Your task to perform on an android device: turn off wifi Image 0: 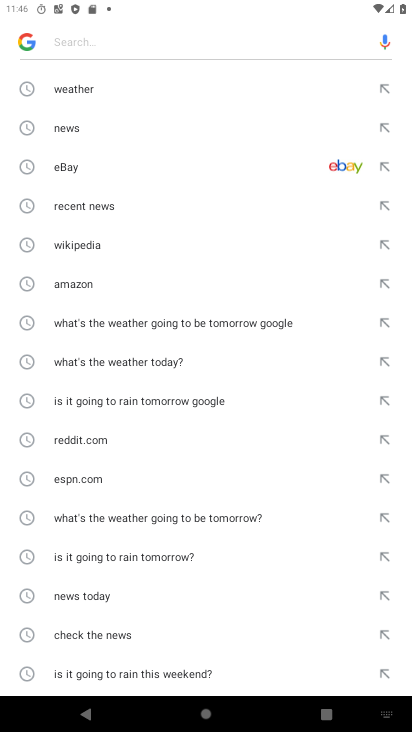
Step 0: press home button
Your task to perform on an android device: turn off wifi Image 1: 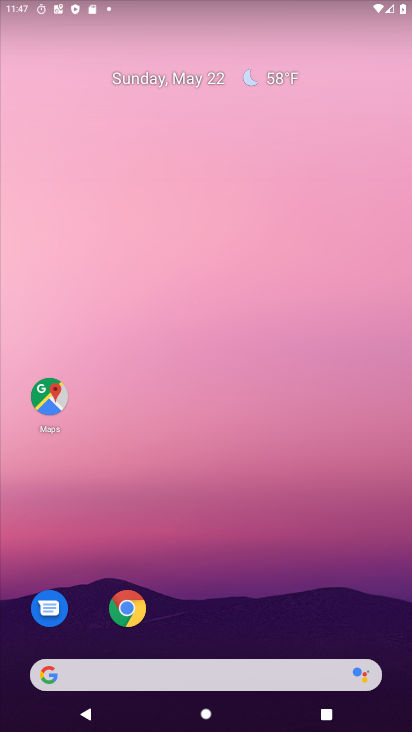
Step 1: drag from (240, 625) to (224, 86)
Your task to perform on an android device: turn off wifi Image 2: 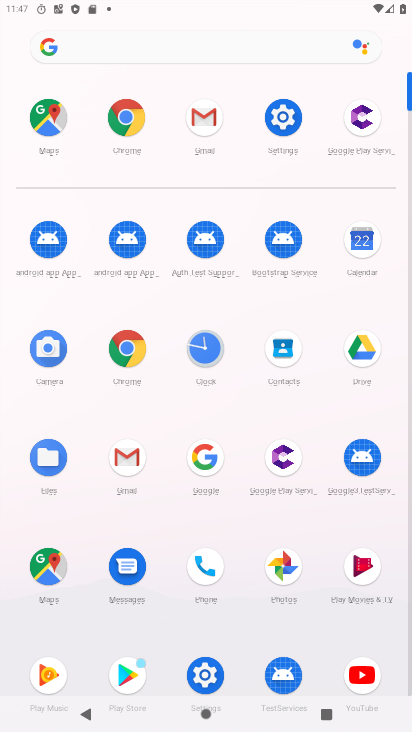
Step 2: click (278, 132)
Your task to perform on an android device: turn off wifi Image 3: 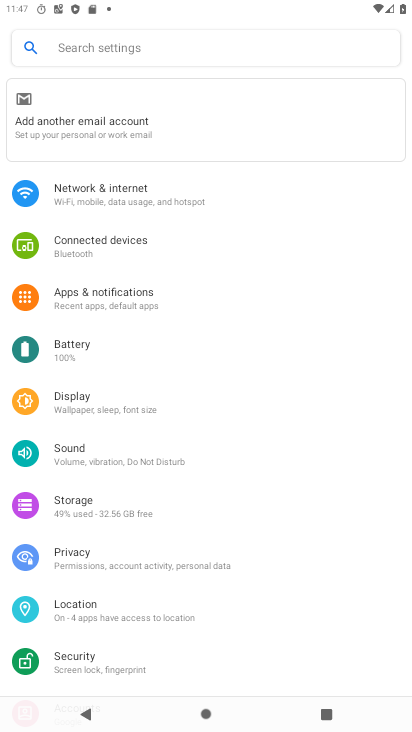
Step 3: click (266, 191)
Your task to perform on an android device: turn off wifi Image 4: 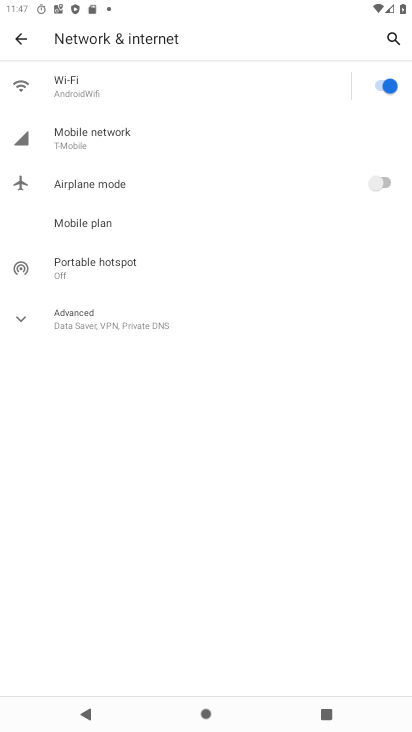
Step 4: click (390, 88)
Your task to perform on an android device: turn off wifi Image 5: 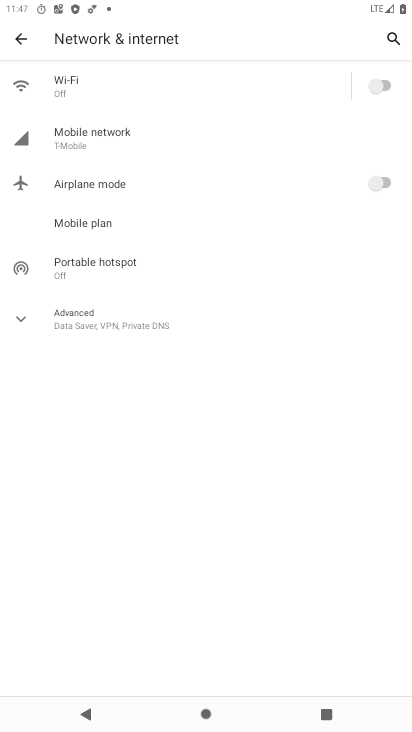
Step 5: task complete